Your task to perform on an android device: turn off wifi Image 0: 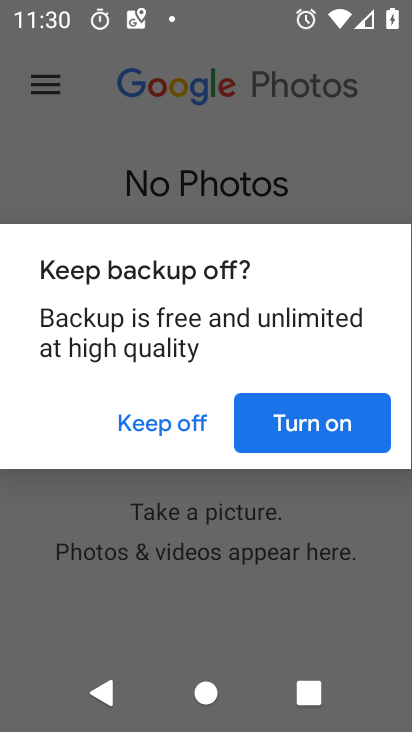
Step 0: press back button
Your task to perform on an android device: turn off wifi Image 1: 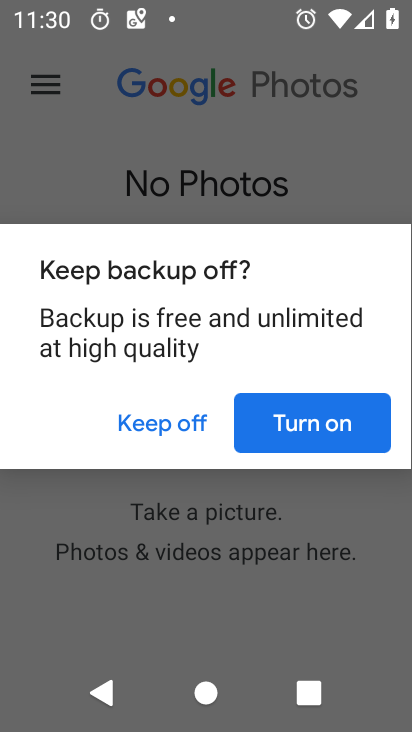
Step 1: press home button
Your task to perform on an android device: turn off wifi Image 2: 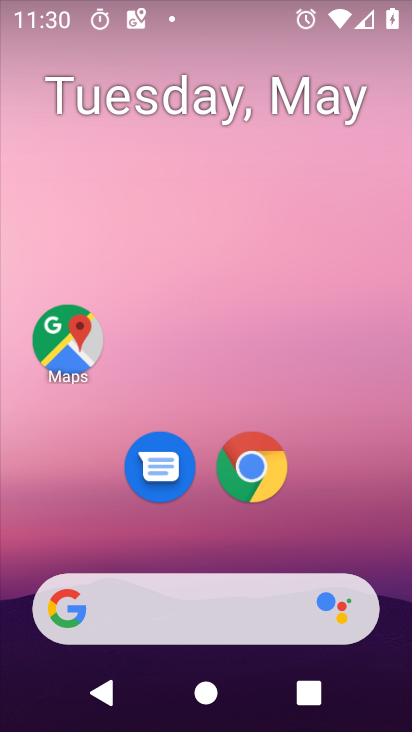
Step 2: drag from (389, 545) to (302, 50)
Your task to perform on an android device: turn off wifi Image 3: 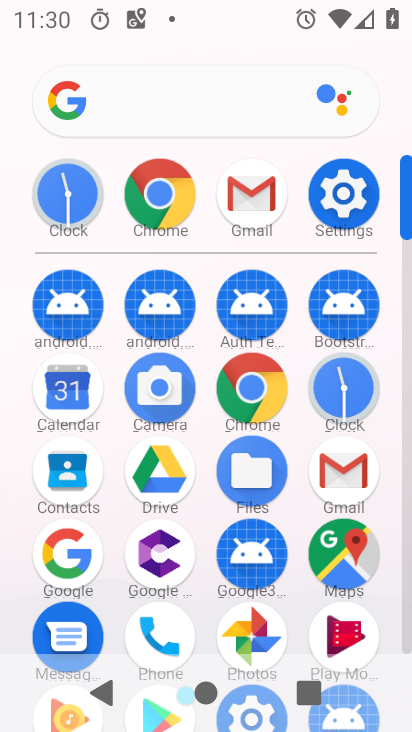
Step 3: drag from (15, 614) to (23, 277)
Your task to perform on an android device: turn off wifi Image 4: 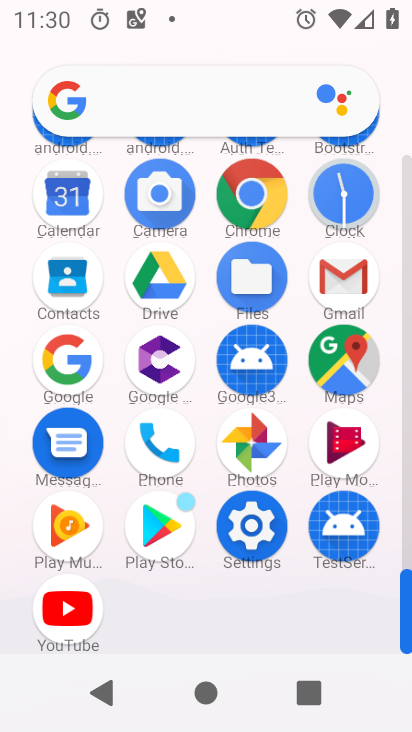
Step 4: click (246, 522)
Your task to perform on an android device: turn off wifi Image 5: 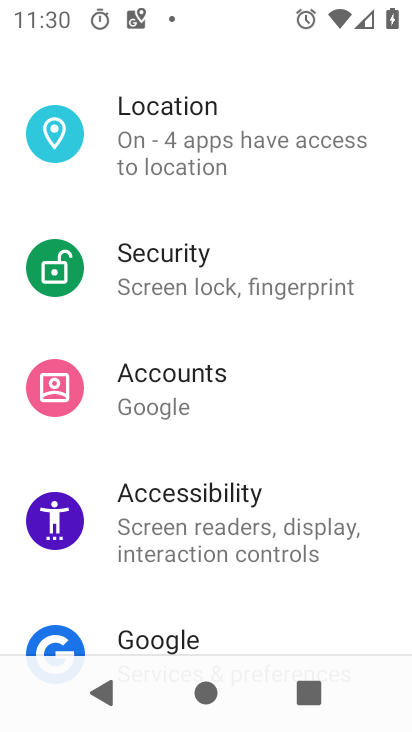
Step 5: drag from (291, 213) to (284, 611)
Your task to perform on an android device: turn off wifi Image 6: 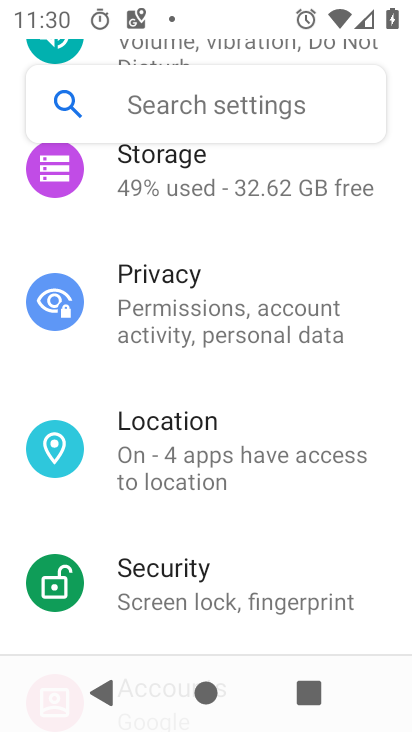
Step 6: drag from (249, 268) to (239, 599)
Your task to perform on an android device: turn off wifi Image 7: 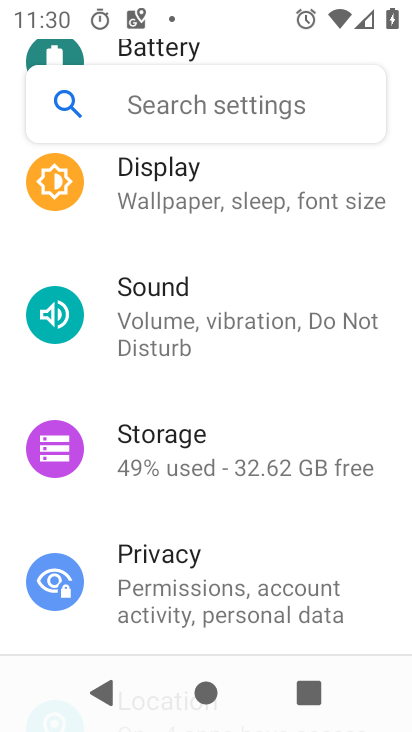
Step 7: drag from (263, 273) to (239, 628)
Your task to perform on an android device: turn off wifi Image 8: 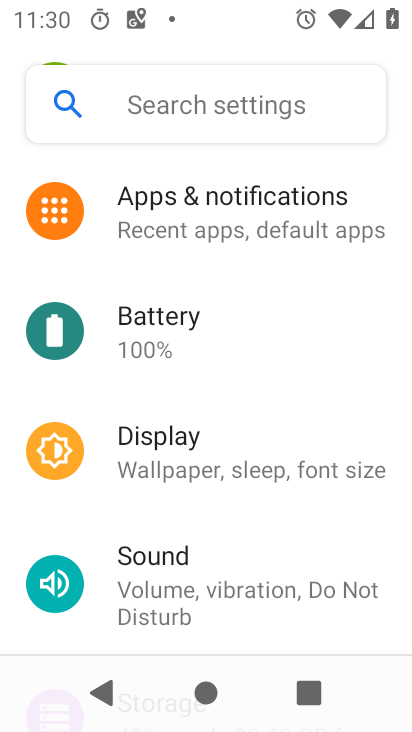
Step 8: drag from (297, 371) to (276, 590)
Your task to perform on an android device: turn off wifi Image 9: 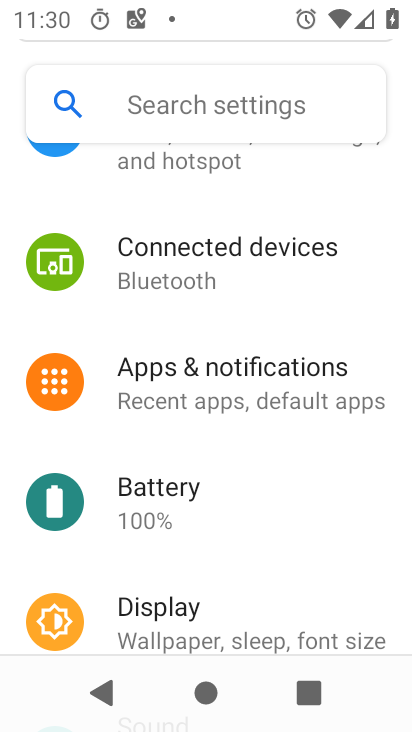
Step 9: drag from (251, 505) to (260, 609)
Your task to perform on an android device: turn off wifi Image 10: 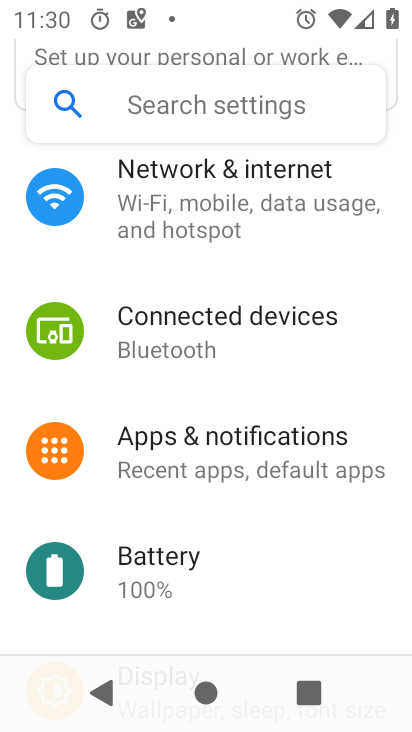
Step 10: click (244, 192)
Your task to perform on an android device: turn off wifi Image 11: 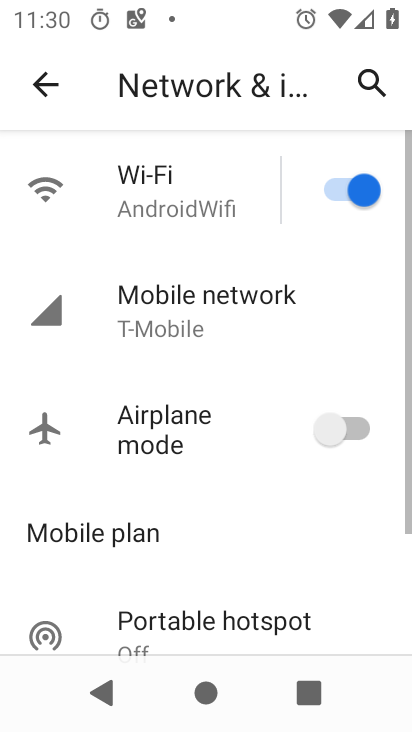
Step 11: click (357, 191)
Your task to perform on an android device: turn off wifi Image 12: 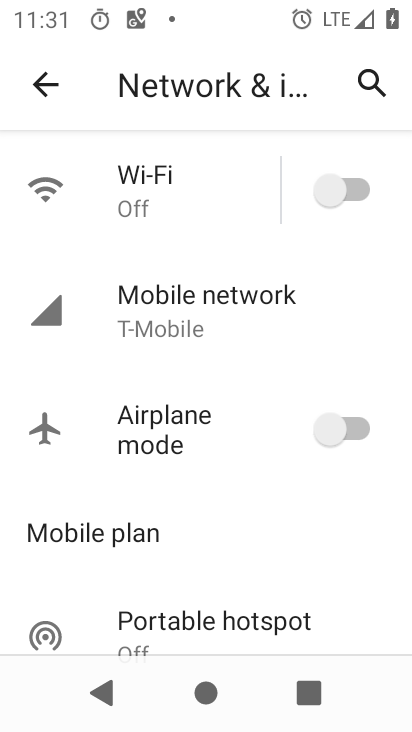
Step 12: task complete